Your task to perform on an android device: Open accessibility settings Image 0: 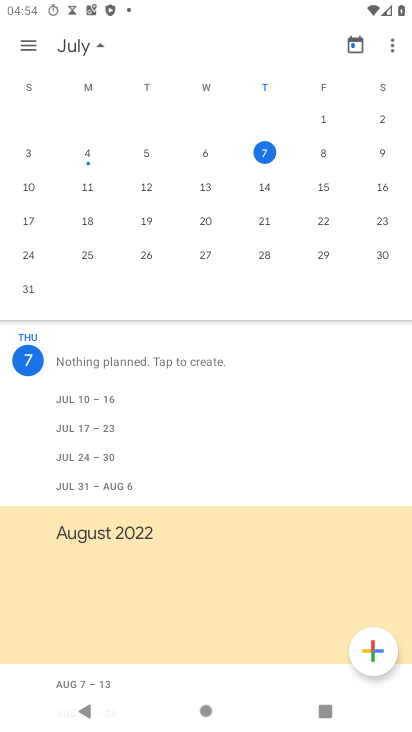
Step 0: press home button
Your task to perform on an android device: Open accessibility settings Image 1: 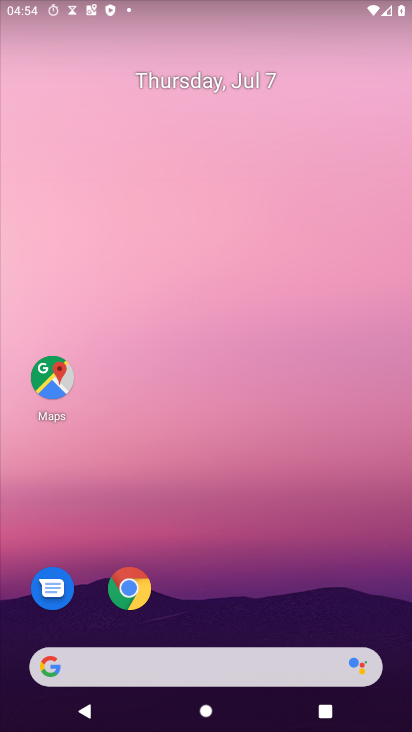
Step 1: drag from (261, 612) to (233, 128)
Your task to perform on an android device: Open accessibility settings Image 2: 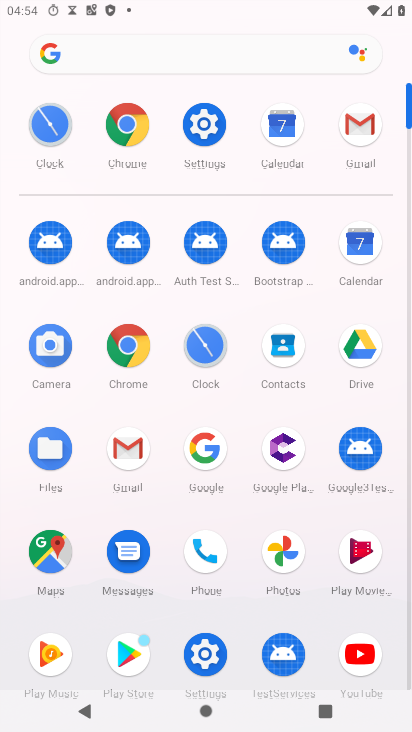
Step 2: click (199, 131)
Your task to perform on an android device: Open accessibility settings Image 3: 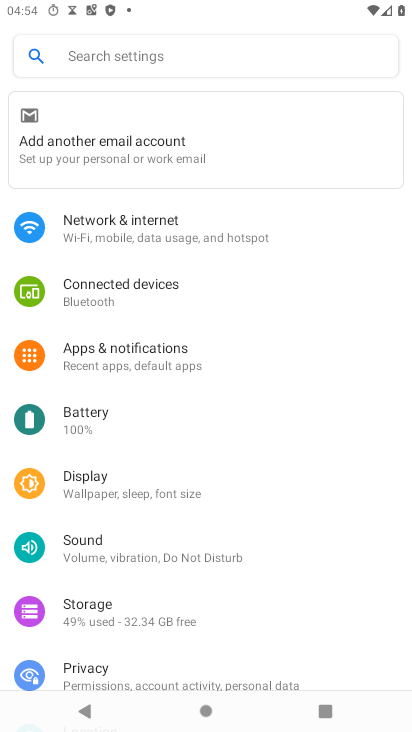
Step 3: drag from (340, 524) to (335, 22)
Your task to perform on an android device: Open accessibility settings Image 4: 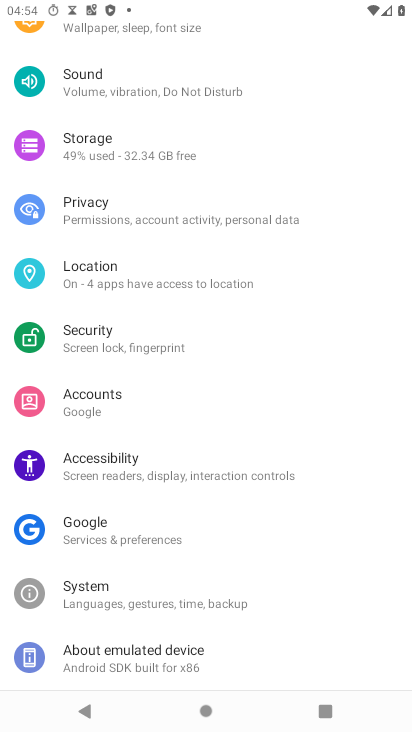
Step 4: click (84, 463)
Your task to perform on an android device: Open accessibility settings Image 5: 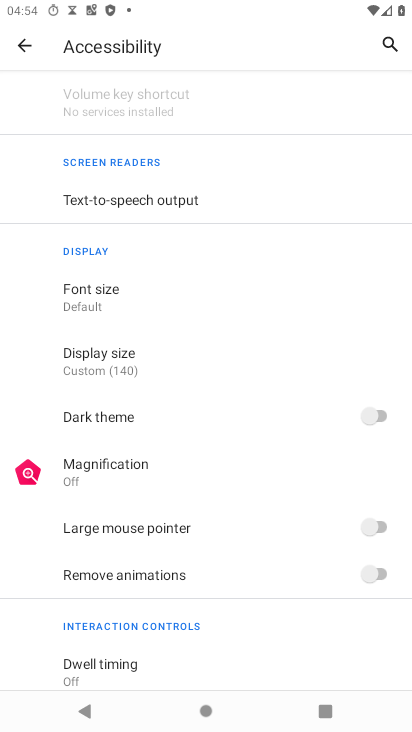
Step 5: task complete